Your task to perform on an android device: Open Google Maps and go to "Timeline" Image 0: 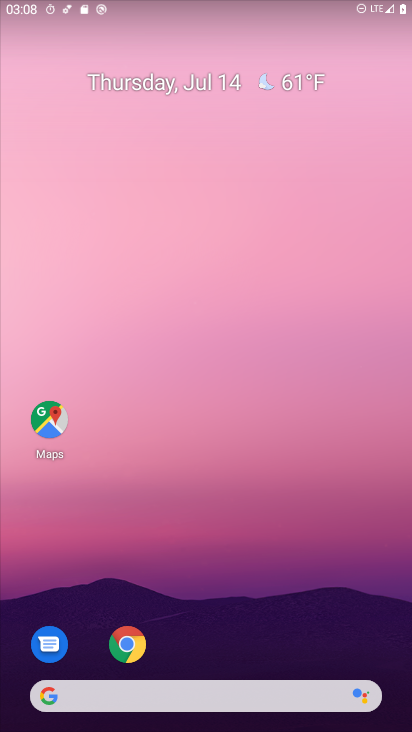
Step 0: drag from (264, 513) to (280, 88)
Your task to perform on an android device: Open Google Maps and go to "Timeline" Image 1: 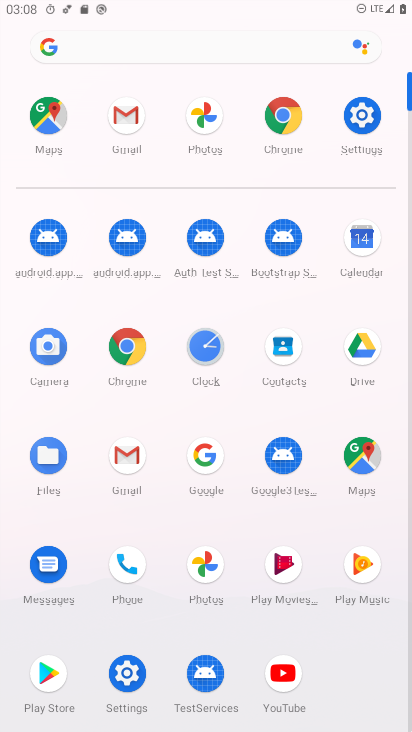
Step 1: click (361, 453)
Your task to perform on an android device: Open Google Maps and go to "Timeline" Image 2: 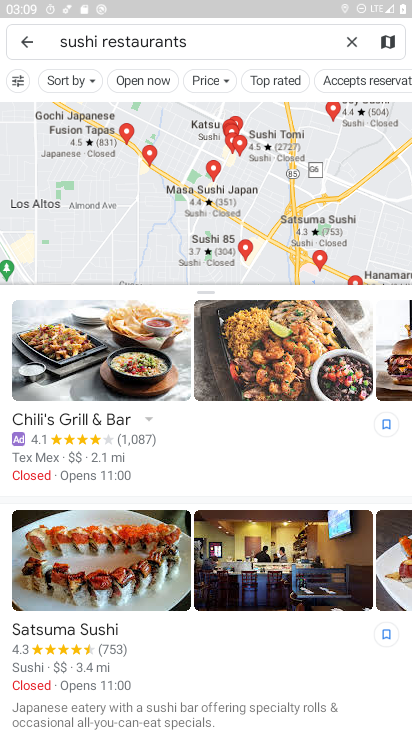
Step 2: click (33, 46)
Your task to perform on an android device: Open Google Maps and go to "Timeline" Image 3: 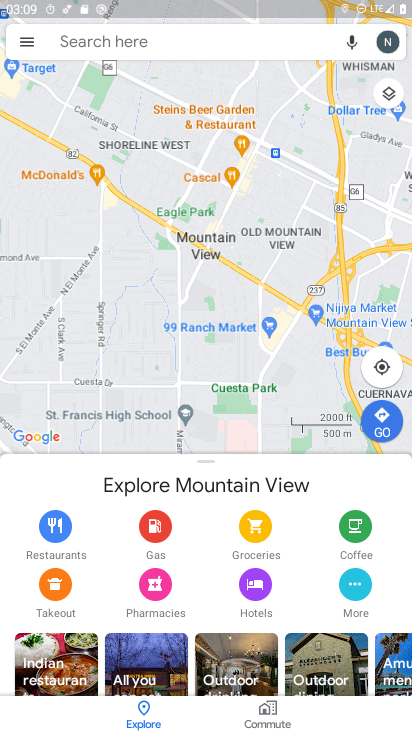
Step 3: click (26, 44)
Your task to perform on an android device: Open Google Maps and go to "Timeline" Image 4: 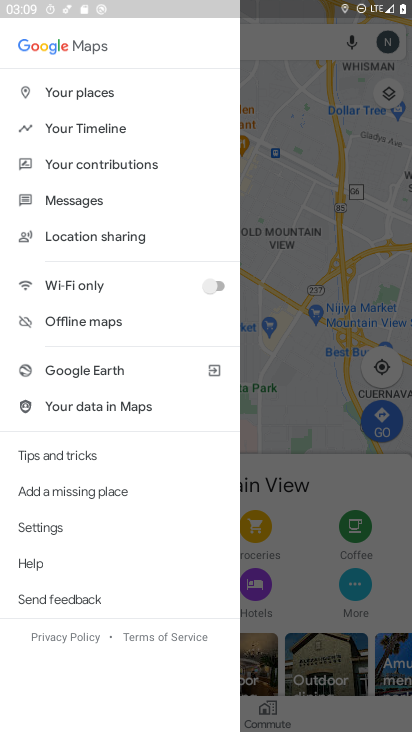
Step 4: click (91, 130)
Your task to perform on an android device: Open Google Maps and go to "Timeline" Image 5: 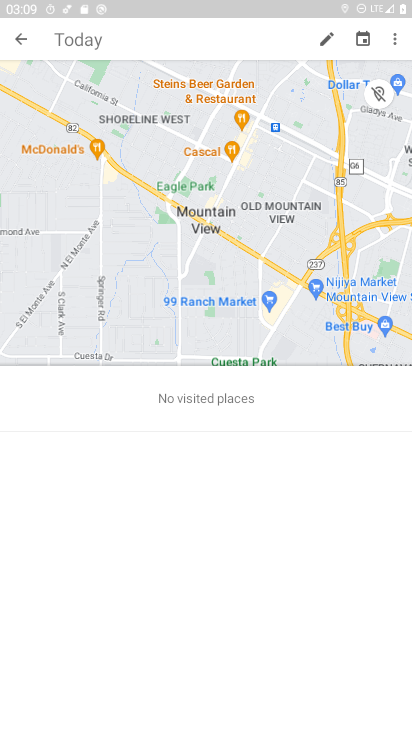
Step 5: task complete